Your task to perform on an android device: change the clock display to digital Image 0: 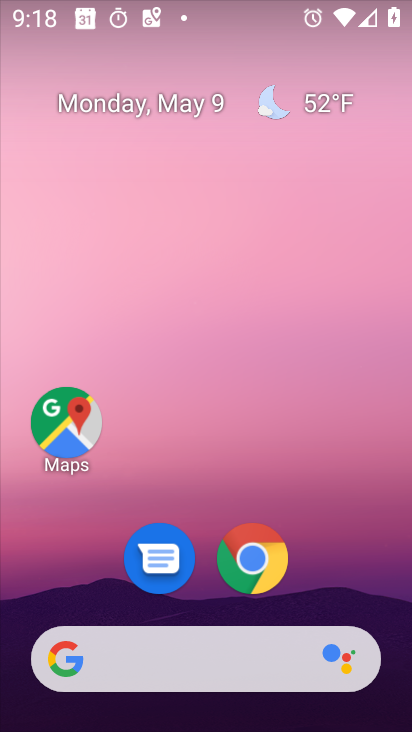
Step 0: drag from (148, 668) to (339, 20)
Your task to perform on an android device: change the clock display to digital Image 1: 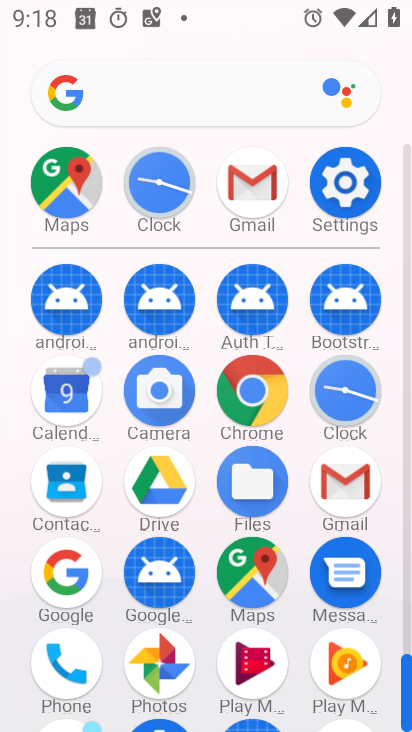
Step 1: click (331, 393)
Your task to perform on an android device: change the clock display to digital Image 2: 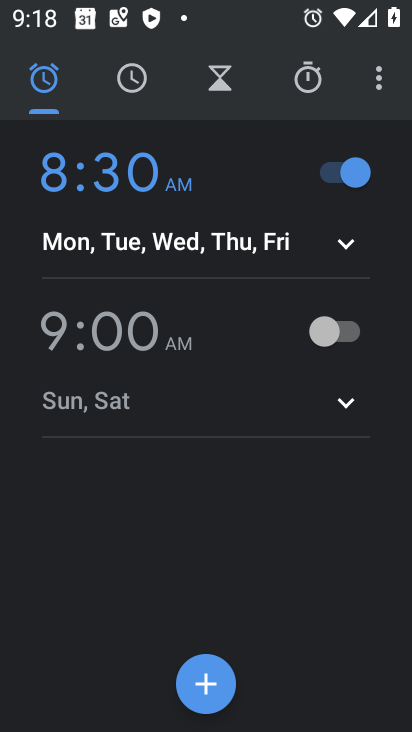
Step 2: click (376, 66)
Your task to perform on an android device: change the clock display to digital Image 3: 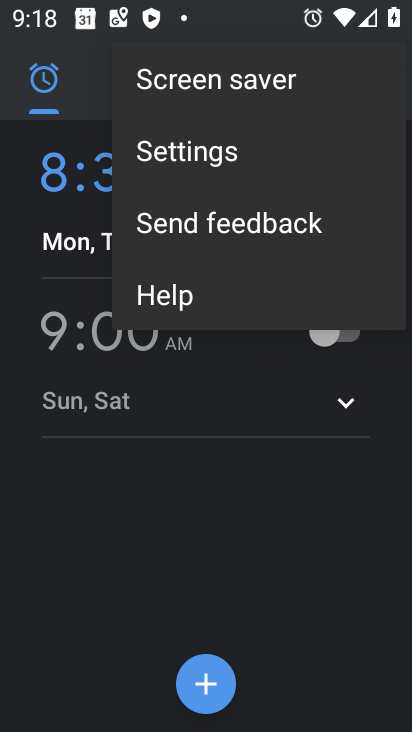
Step 3: click (219, 143)
Your task to perform on an android device: change the clock display to digital Image 4: 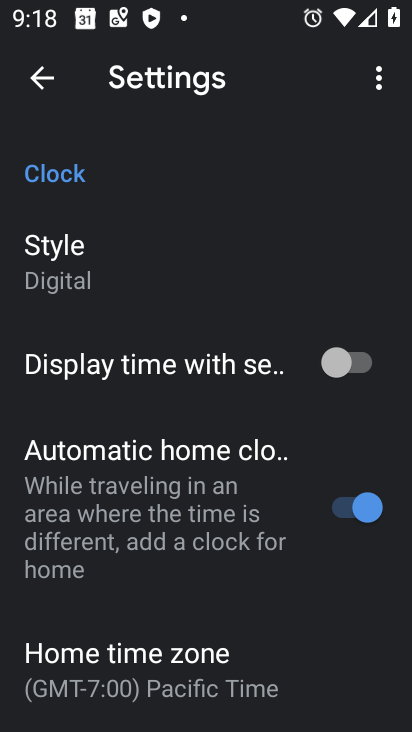
Step 4: click (92, 280)
Your task to perform on an android device: change the clock display to digital Image 5: 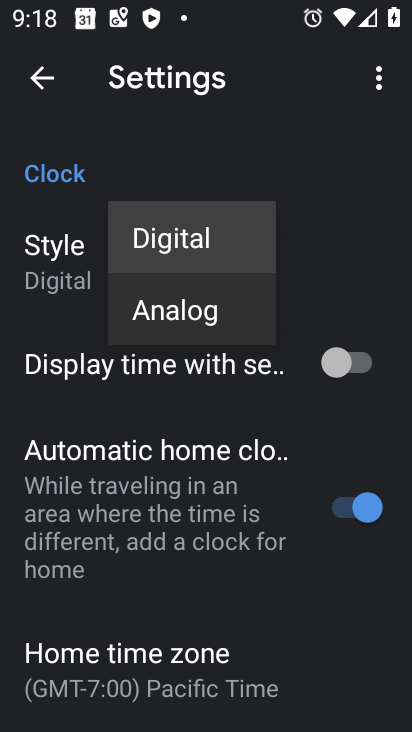
Step 5: click (174, 253)
Your task to perform on an android device: change the clock display to digital Image 6: 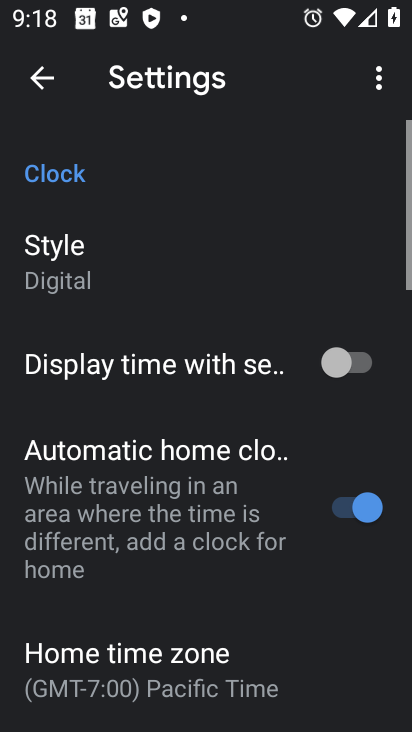
Step 6: task complete